Your task to perform on an android device: Go to CNN.com Image 0: 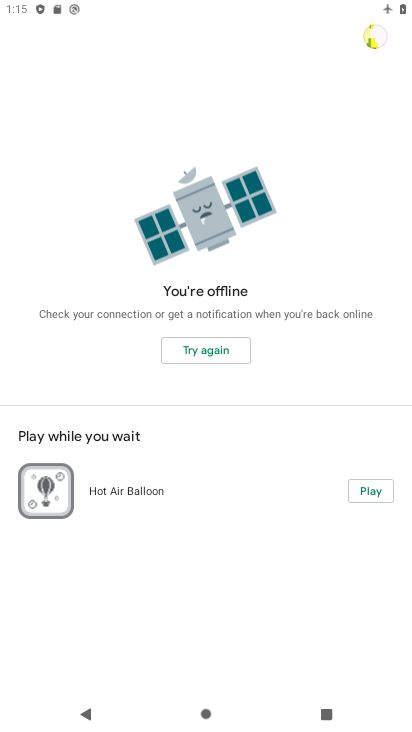
Step 0: press home button
Your task to perform on an android device: Go to CNN.com Image 1: 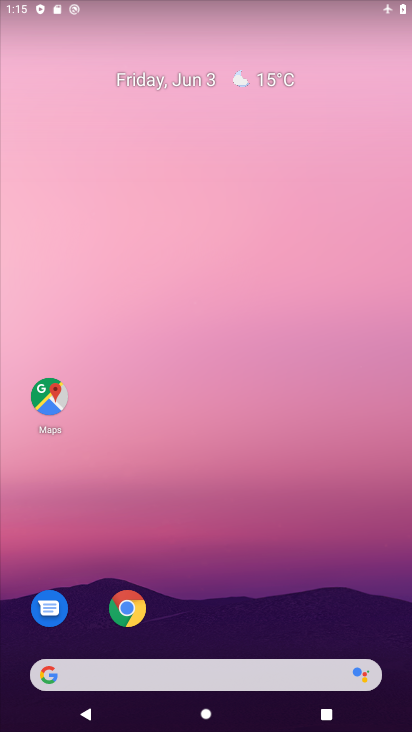
Step 1: click (125, 613)
Your task to perform on an android device: Go to CNN.com Image 2: 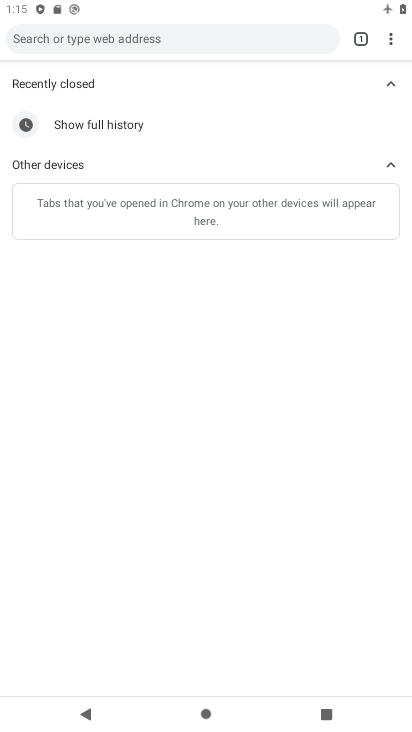
Step 2: click (171, 39)
Your task to perform on an android device: Go to CNN.com Image 3: 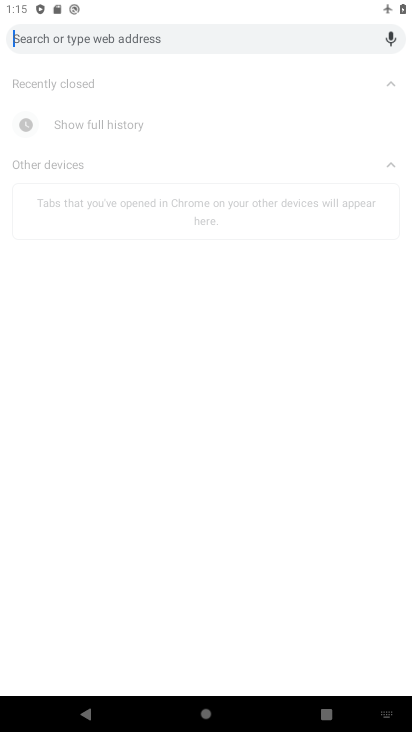
Step 3: type "cnn.com"
Your task to perform on an android device: Go to CNN.com Image 4: 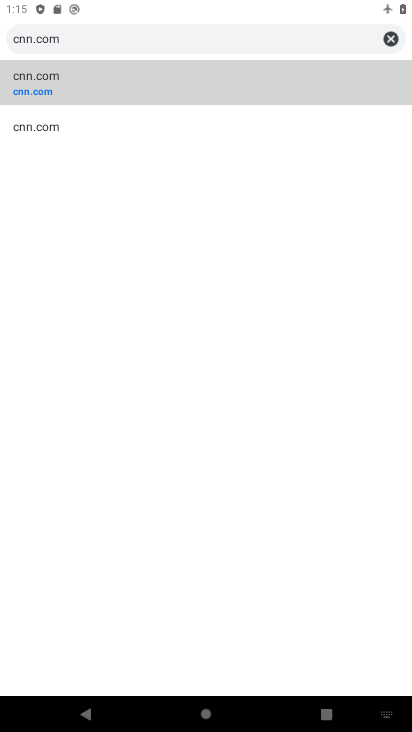
Step 4: click (366, 334)
Your task to perform on an android device: Go to CNN.com Image 5: 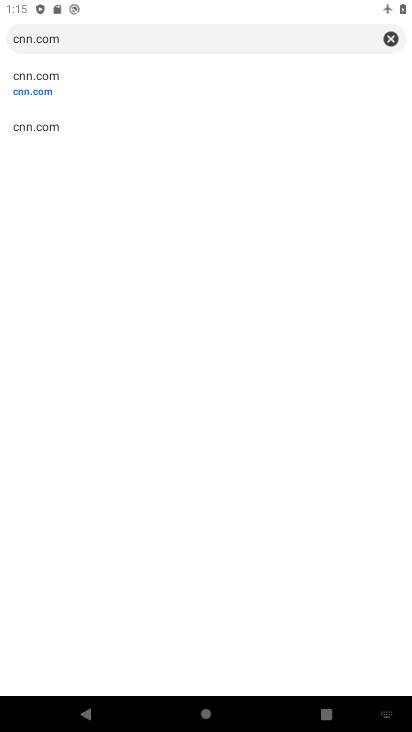
Step 5: click (46, 90)
Your task to perform on an android device: Go to CNN.com Image 6: 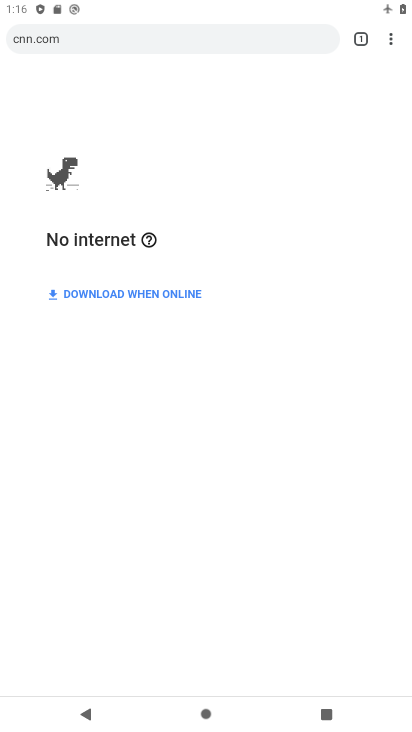
Step 6: task complete